Your task to perform on an android device: set the stopwatch Image 0: 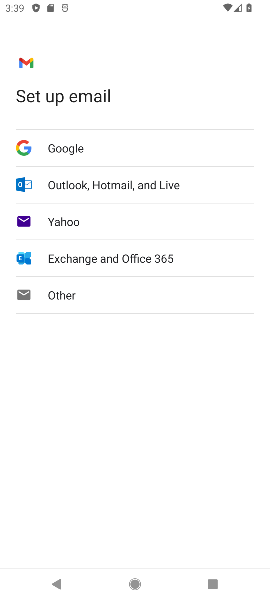
Step 0: press back button
Your task to perform on an android device: set the stopwatch Image 1: 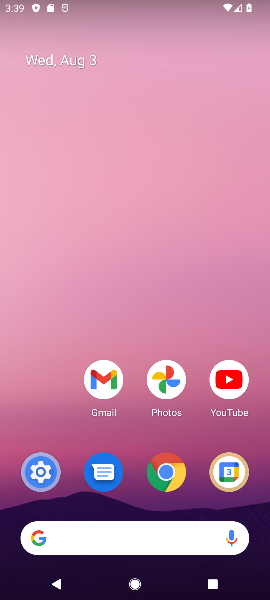
Step 1: drag from (61, 434) to (106, 2)
Your task to perform on an android device: set the stopwatch Image 2: 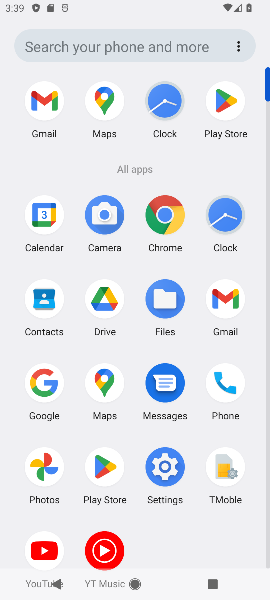
Step 2: click (217, 224)
Your task to perform on an android device: set the stopwatch Image 3: 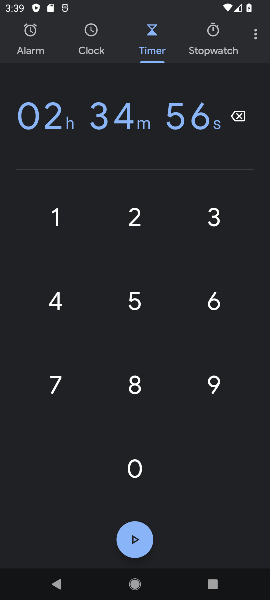
Step 3: click (201, 35)
Your task to perform on an android device: set the stopwatch Image 4: 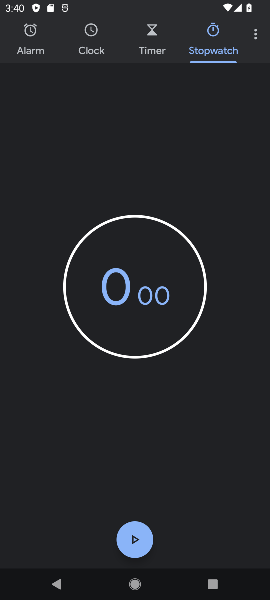
Step 4: task complete